Your task to perform on an android device: delete a single message in the gmail app Image 0: 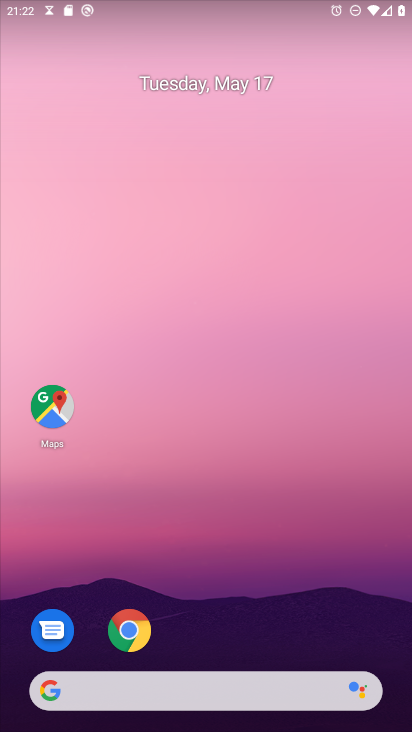
Step 0: drag from (252, 480) to (252, 206)
Your task to perform on an android device: delete a single message in the gmail app Image 1: 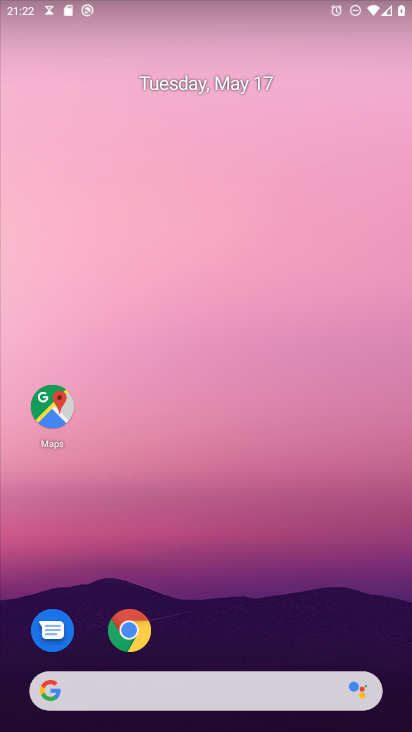
Step 1: drag from (200, 629) to (217, 110)
Your task to perform on an android device: delete a single message in the gmail app Image 2: 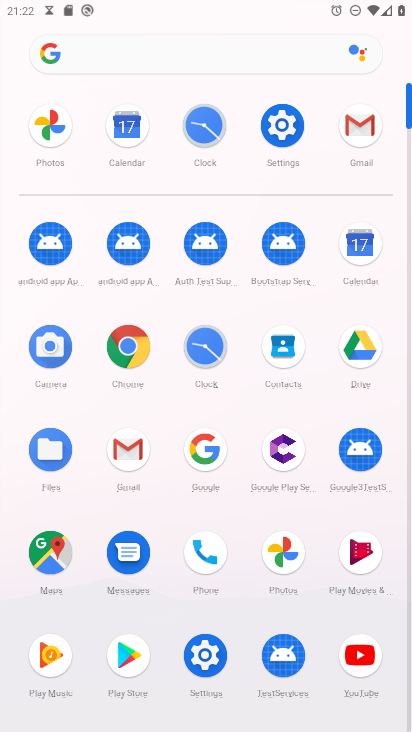
Step 2: click (128, 458)
Your task to perform on an android device: delete a single message in the gmail app Image 3: 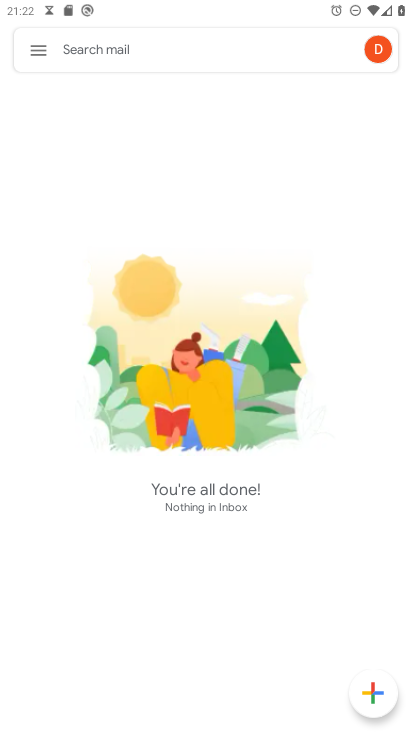
Step 3: click (42, 58)
Your task to perform on an android device: delete a single message in the gmail app Image 4: 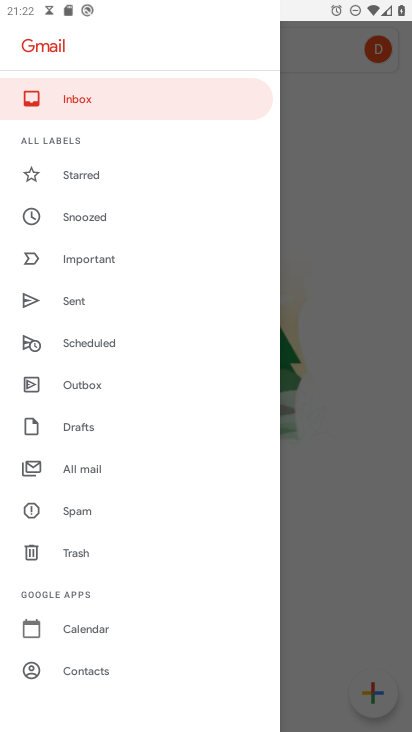
Step 4: click (338, 451)
Your task to perform on an android device: delete a single message in the gmail app Image 5: 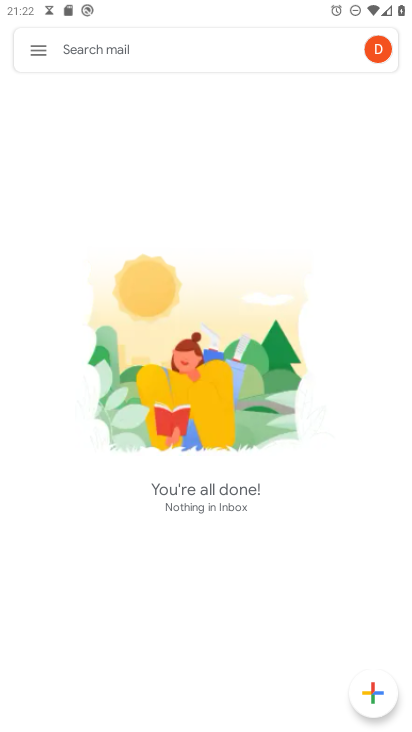
Step 5: task complete